Your task to perform on an android device: Empty the shopping cart on costco.com. Image 0: 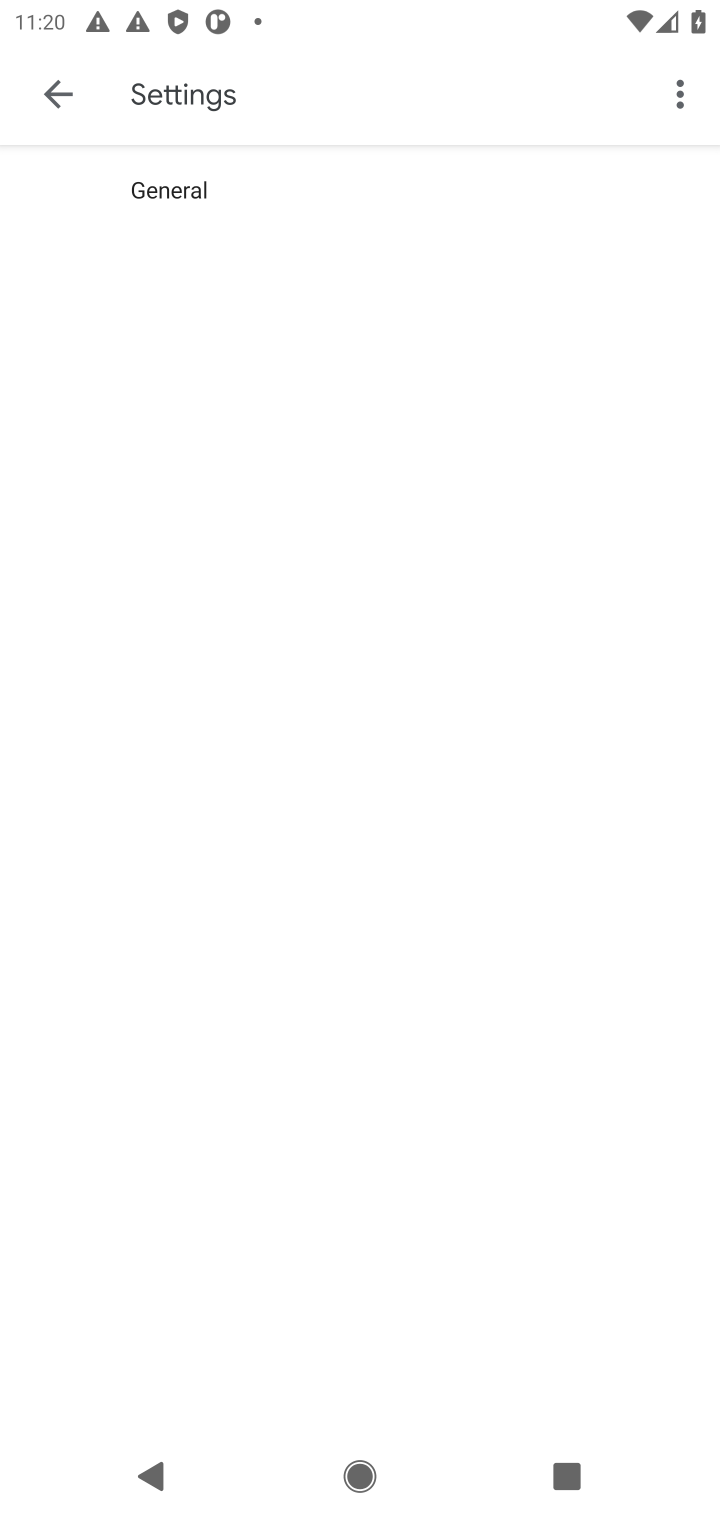
Step 0: press home button
Your task to perform on an android device: Empty the shopping cart on costco.com. Image 1: 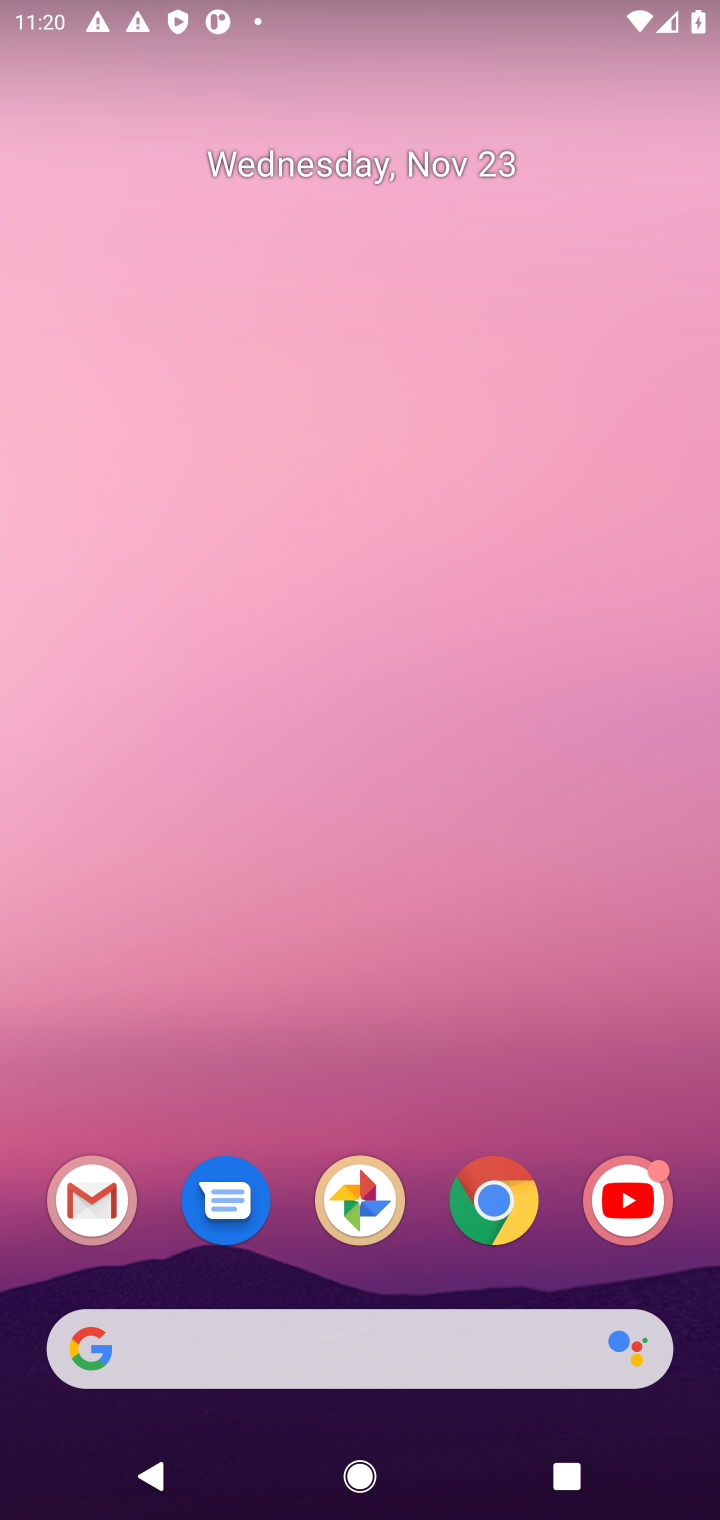
Step 1: click (261, 1339)
Your task to perform on an android device: Empty the shopping cart on costco.com. Image 2: 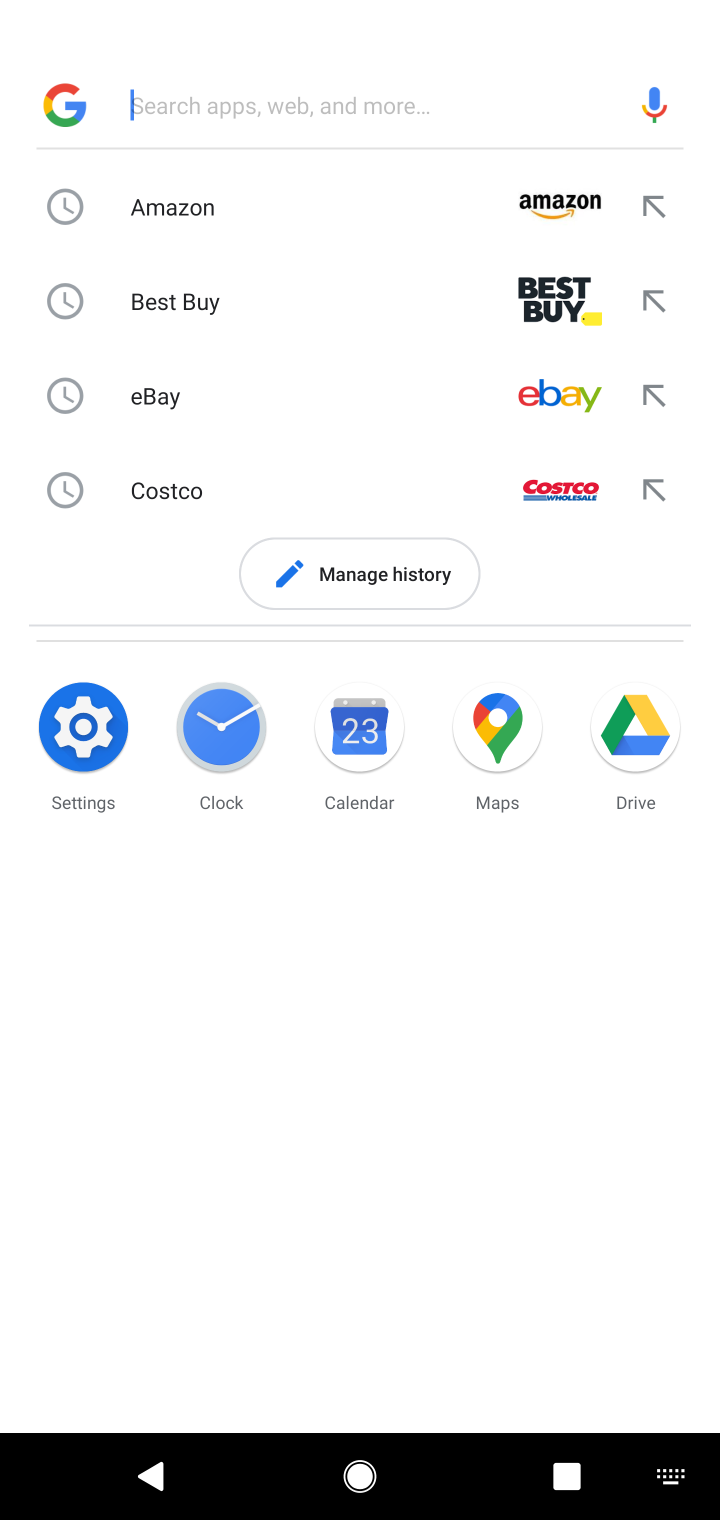
Step 2: type "costco.com"
Your task to perform on an android device: Empty the shopping cart on costco.com. Image 3: 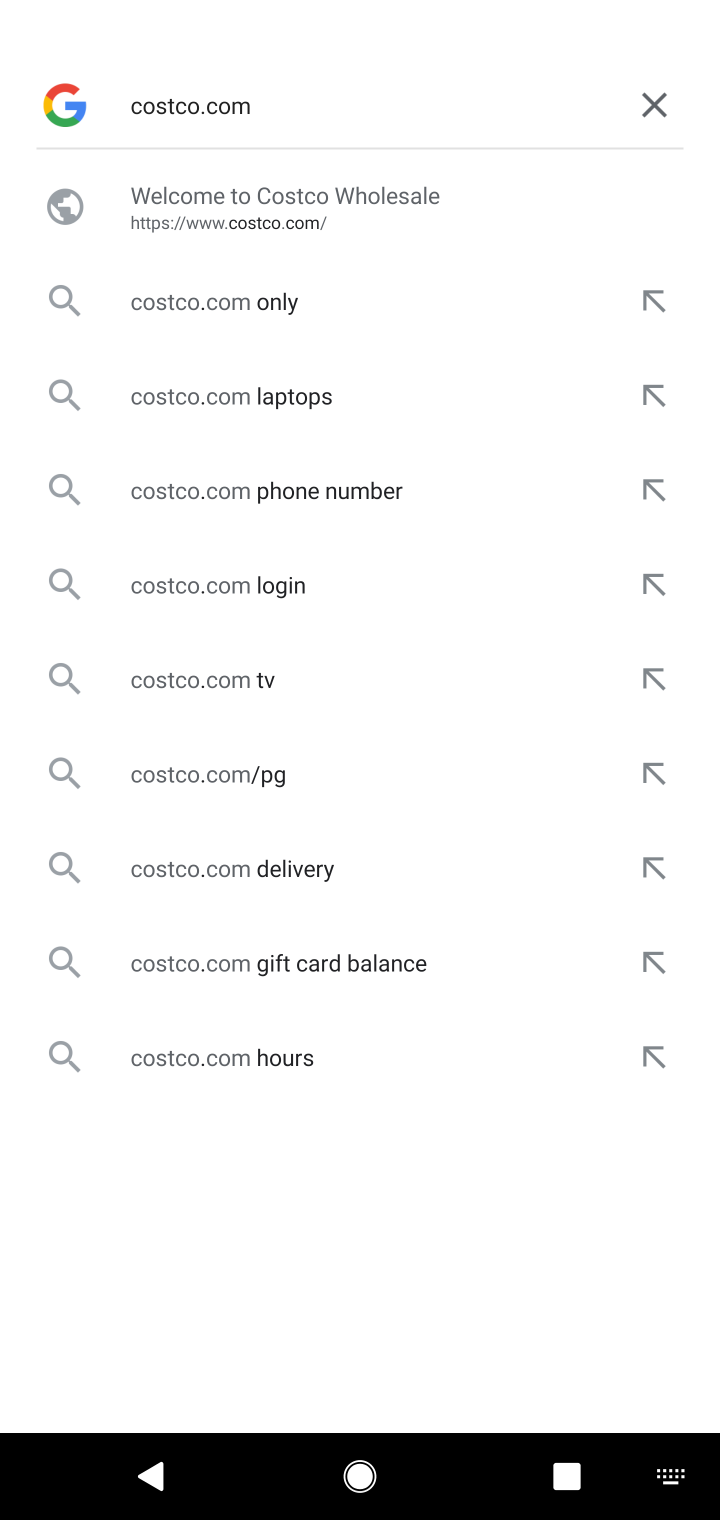
Step 3: click (410, 243)
Your task to perform on an android device: Empty the shopping cart on costco.com. Image 4: 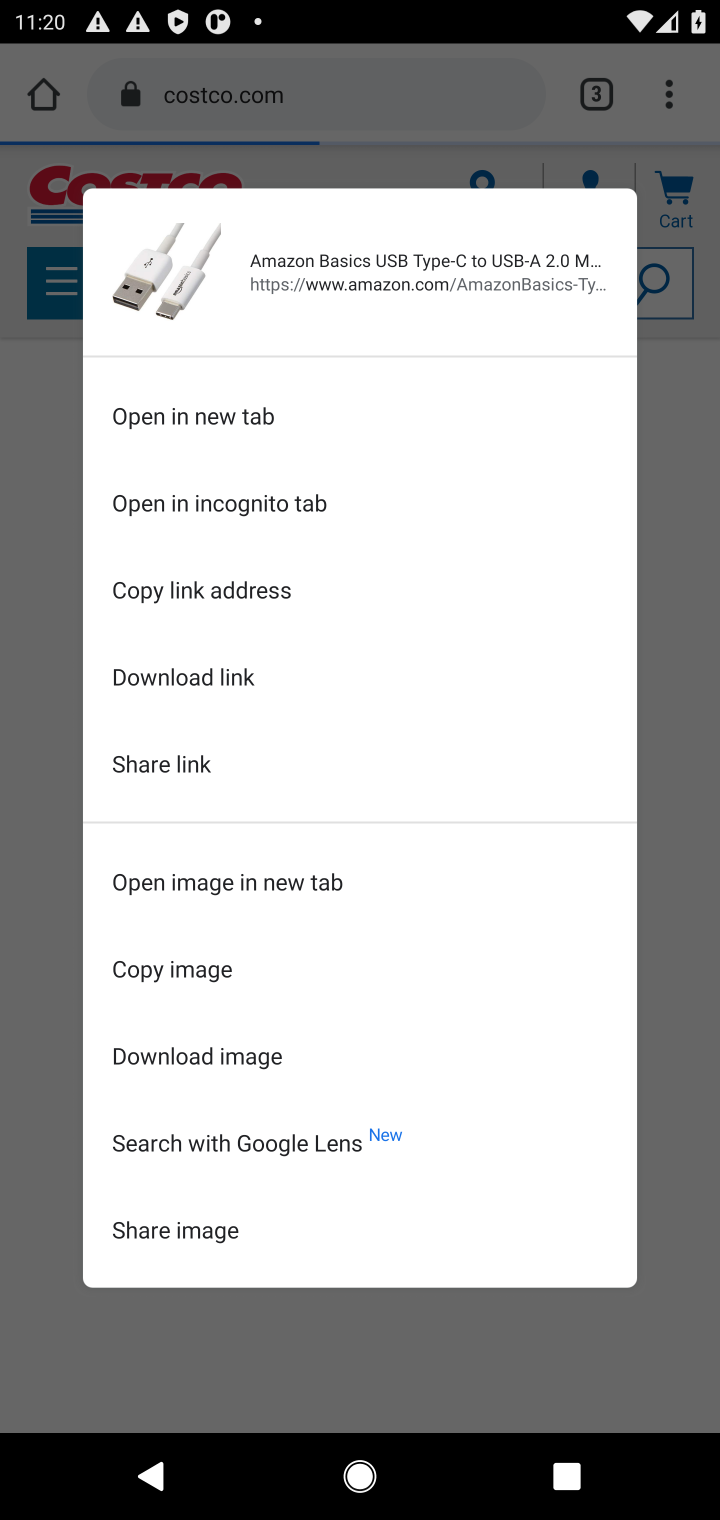
Step 4: task complete